Your task to perform on an android device: Open privacy settings Image 0: 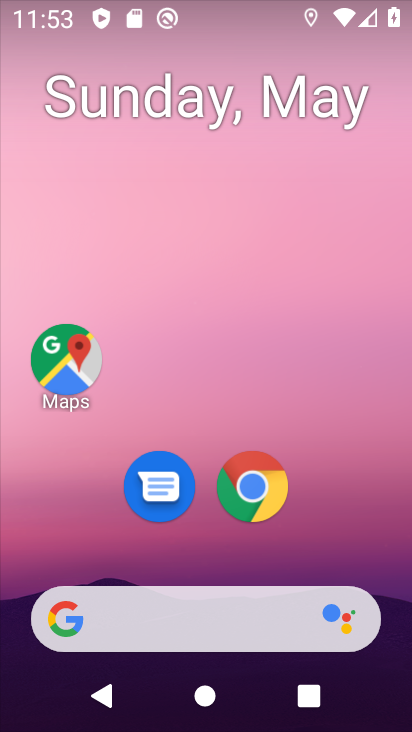
Step 0: drag from (393, 611) to (335, 143)
Your task to perform on an android device: Open privacy settings Image 1: 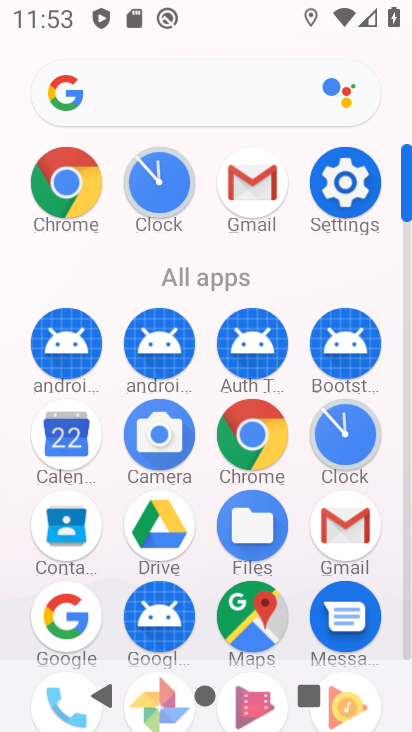
Step 1: click (408, 646)
Your task to perform on an android device: Open privacy settings Image 2: 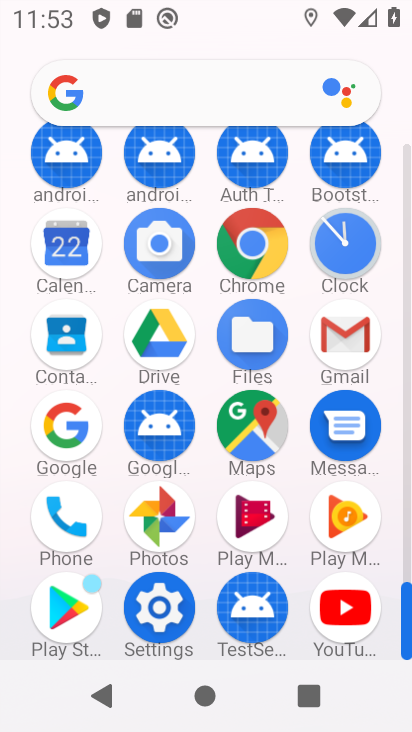
Step 2: click (162, 608)
Your task to perform on an android device: Open privacy settings Image 3: 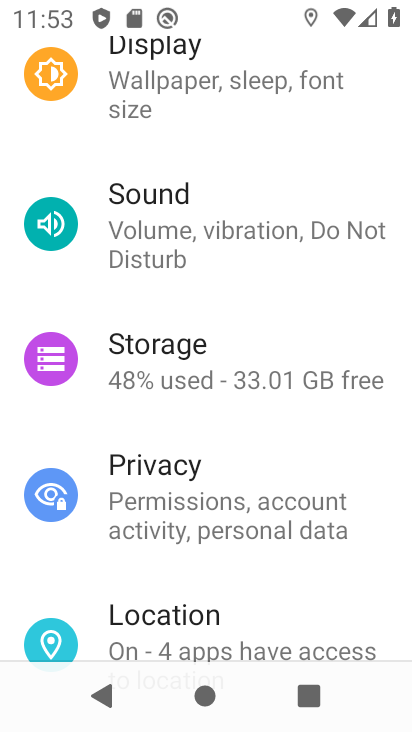
Step 3: click (148, 503)
Your task to perform on an android device: Open privacy settings Image 4: 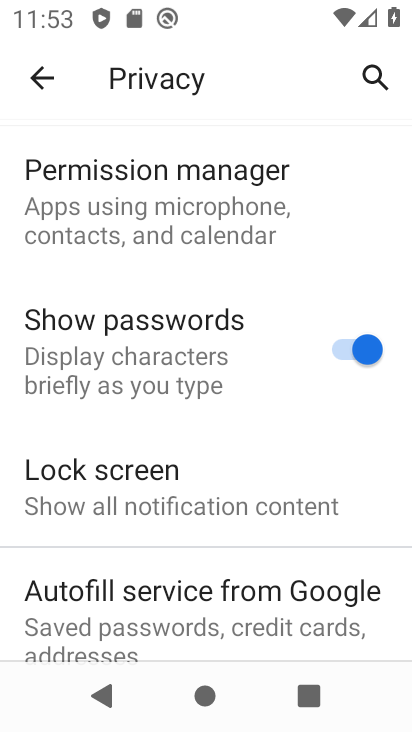
Step 4: drag from (241, 630) to (237, 184)
Your task to perform on an android device: Open privacy settings Image 5: 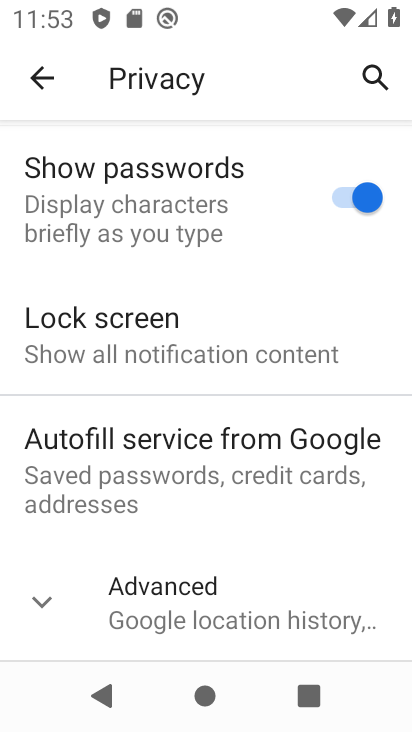
Step 5: click (38, 597)
Your task to perform on an android device: Open privacy settings Image 6: 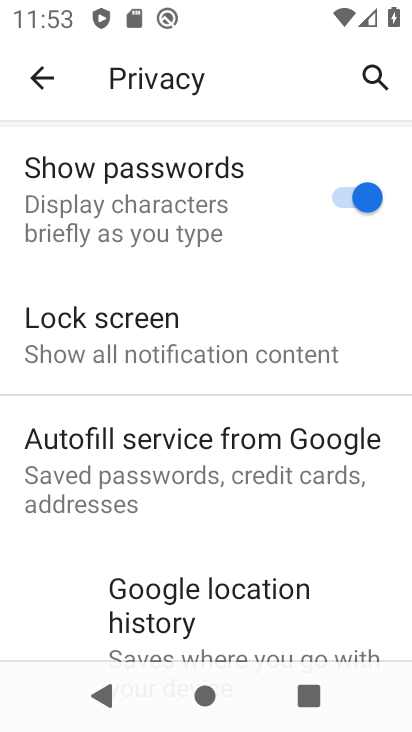
Step 6: task complete